Your task to perform on an android device: add a label to a message in the gmail app Image 0: 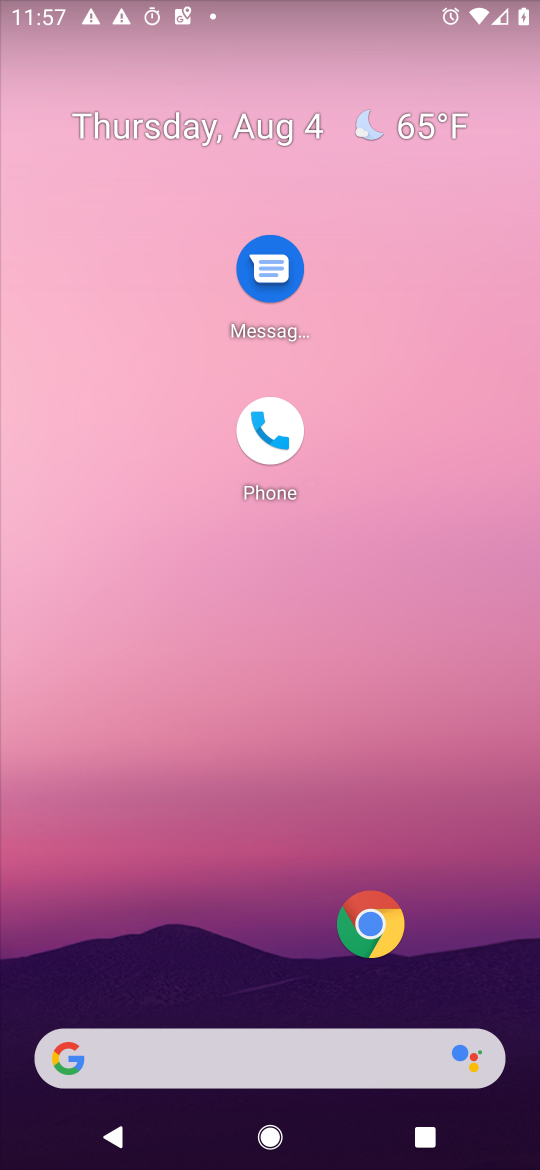
Step 0: drag from (264, 909) to (260, 324)
Your task to perform on an android device: add a label to a message in the gmail app Image 1: 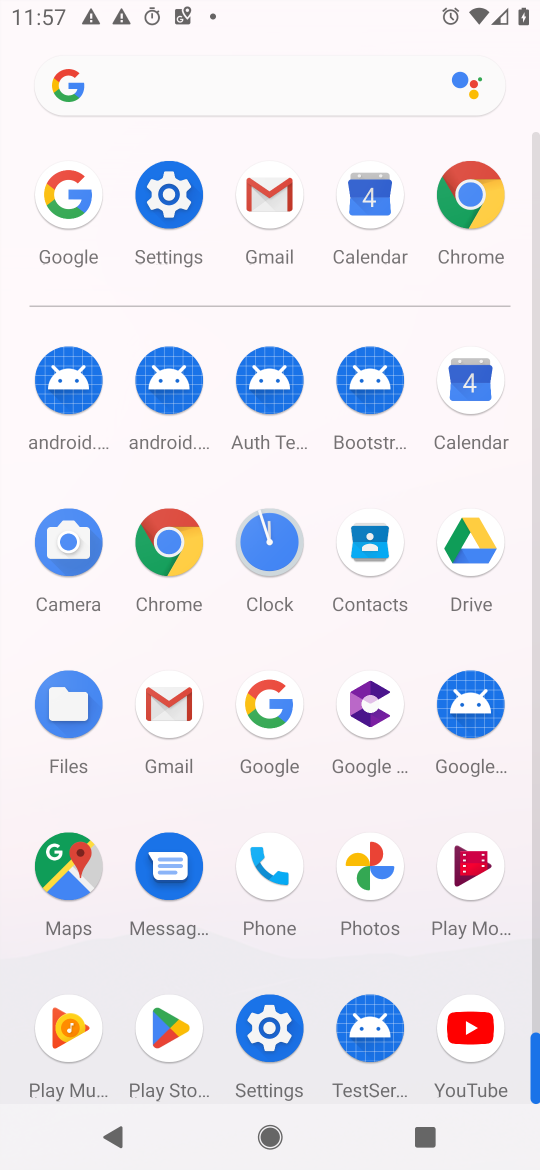
Step 1: click (180, 705)
Your task to perform on an android device: add a label to a message in the gmail app Image 2: 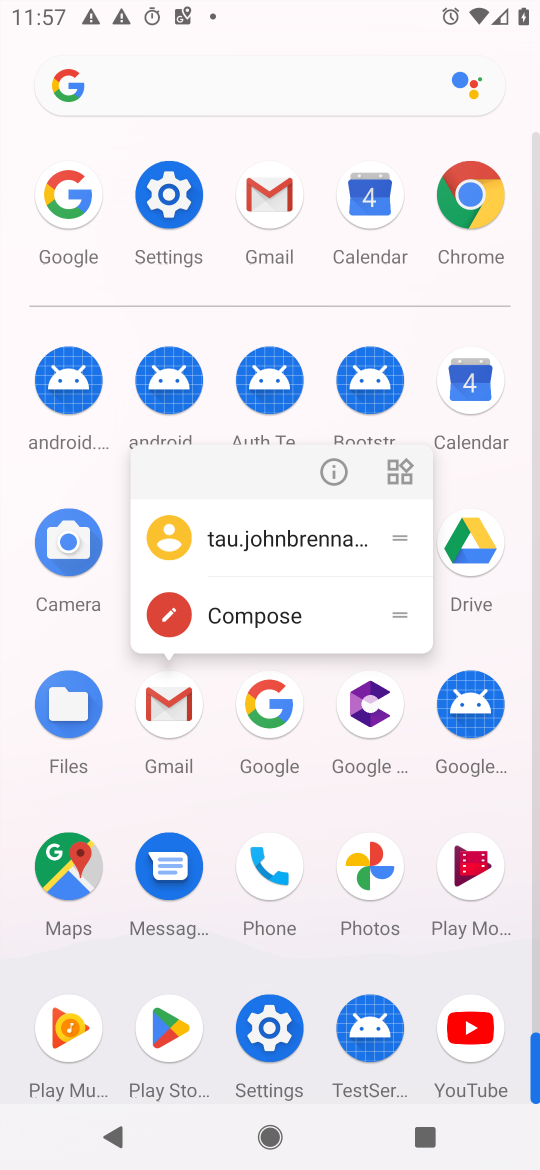
Step 2: click (325, 463)
Your task to perform on an android device: add a label to a message in the gmail app Image 3: 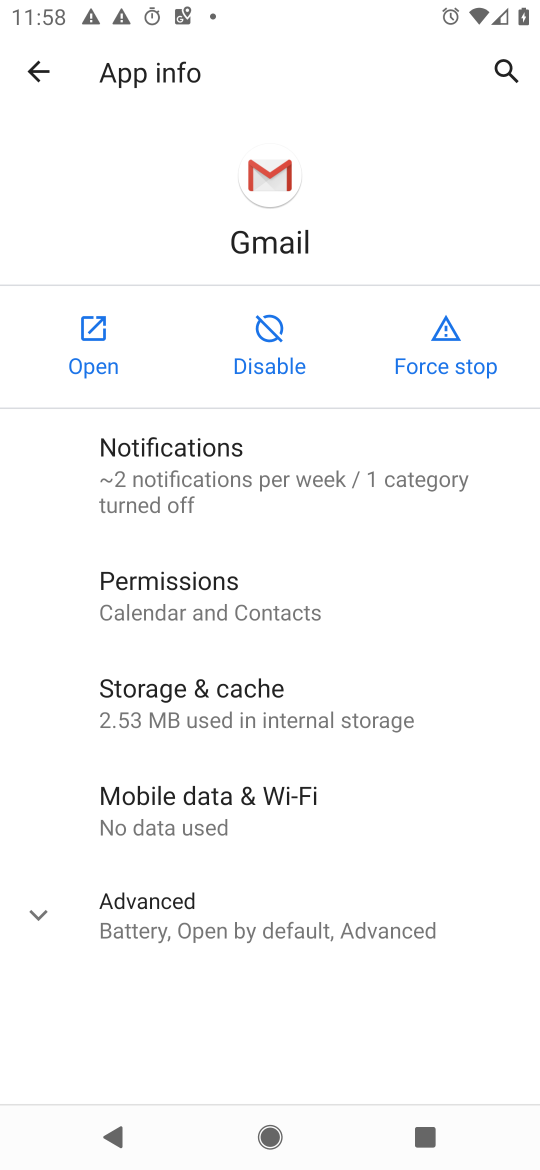
Step 3: click (92, 361)
Your task to perform on an android device: add a label to a message in the gmail app Image 4: 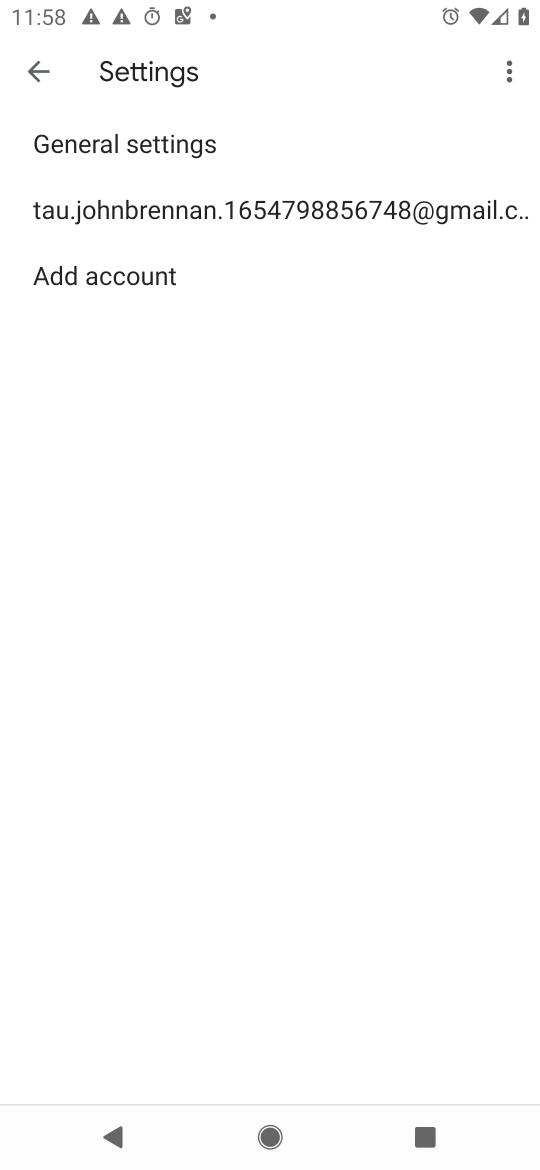
Step 4: click (25, 75)
Your task to perform on an android device: add a label to a message in the gmail app Image 5: 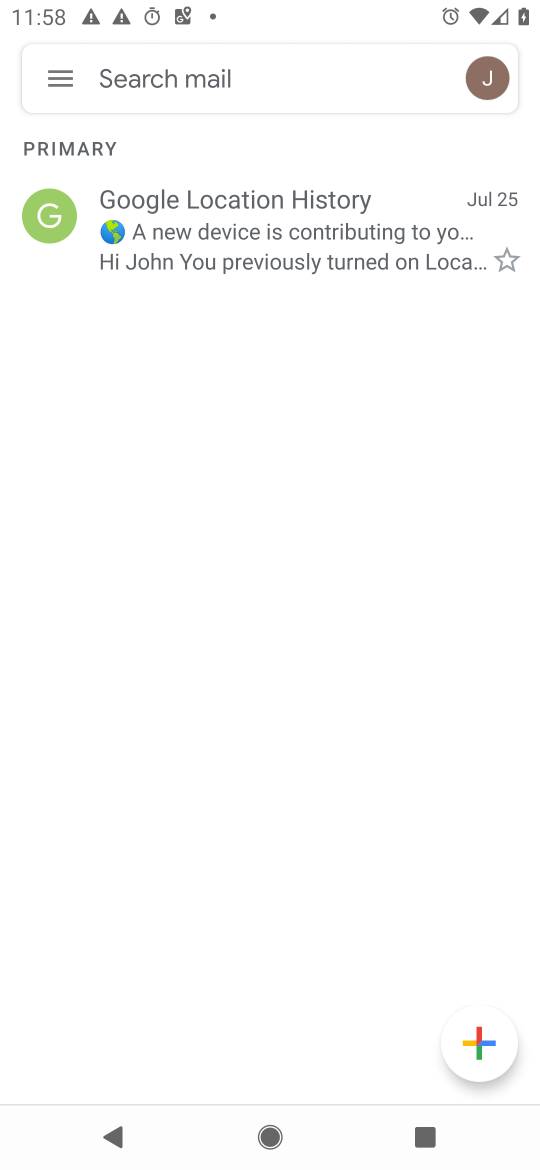
Step 5: drag from (191, 721) to (205, 317)
Your task to perform on an android device: add a label to a message in the gmail app Image 6: 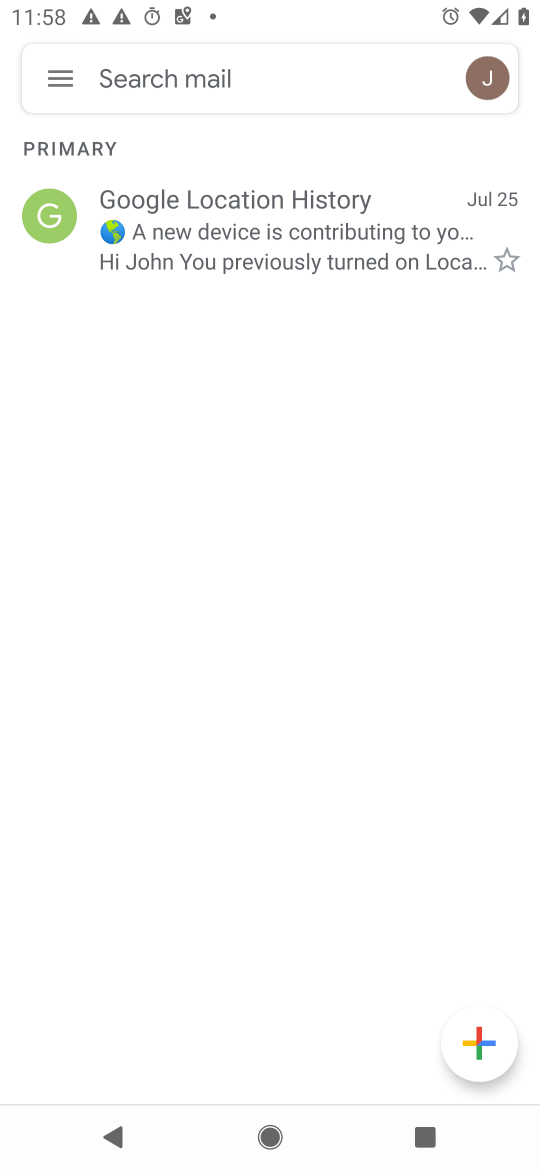
Step 6: click (495, 261)
Your task to perform on an android device: add a label to a message in the gmail app Image 7: 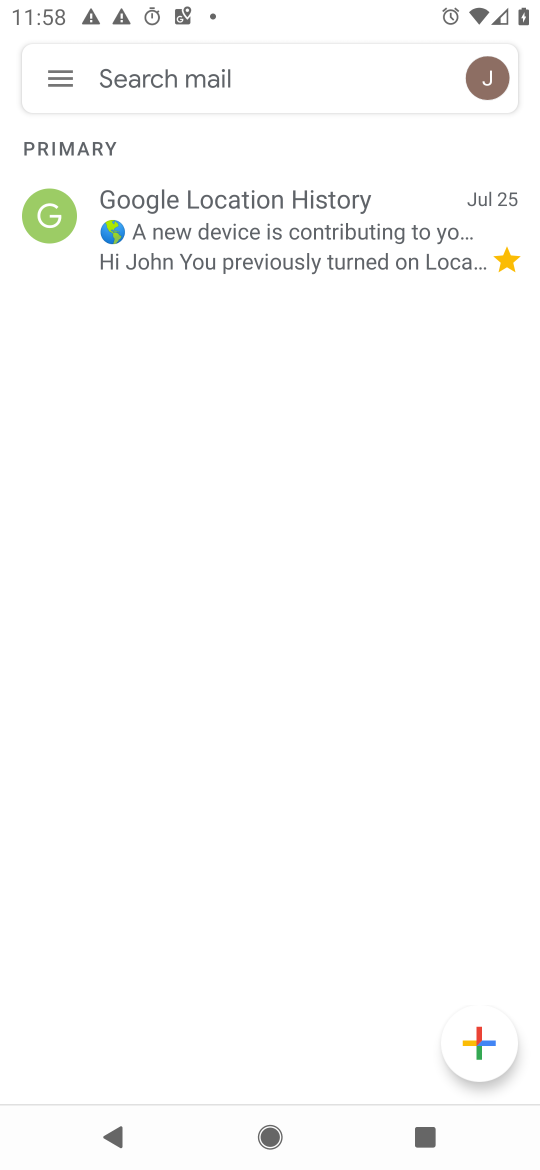
Step 7: task complete